Your task to perform on an android device: change timer sound Image 0: 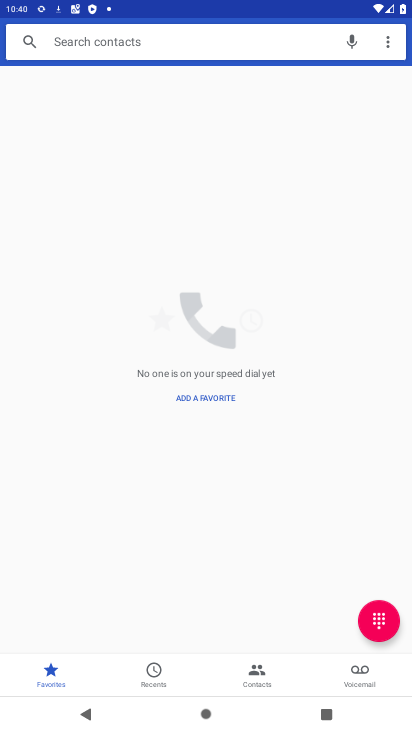
Step 0: press home button
Your task to perform on an android device: change timer sound Image 1: 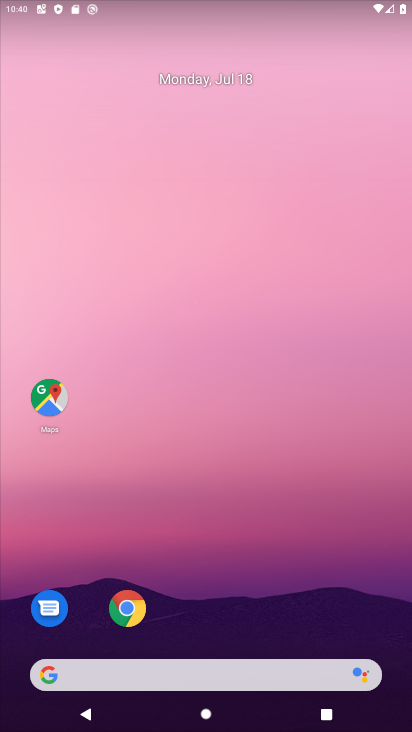
Step 1: drag from (191, 439) to (197, 77)
Your task to perform on an android device: change timer sound Image 2: 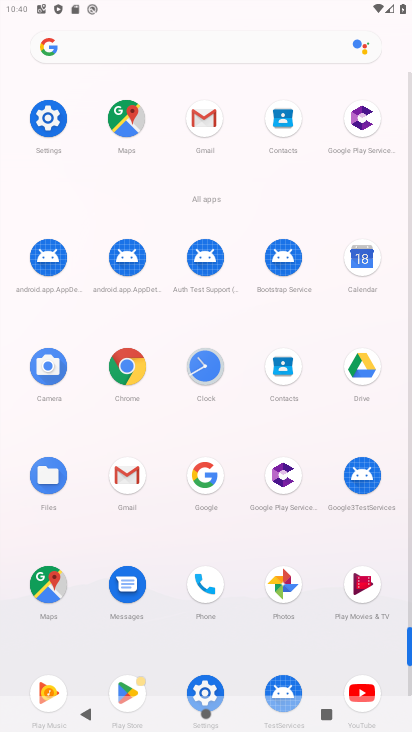
Step 2: click (209, 38)
Your task to perform on an android device: change timer sound Image 3: 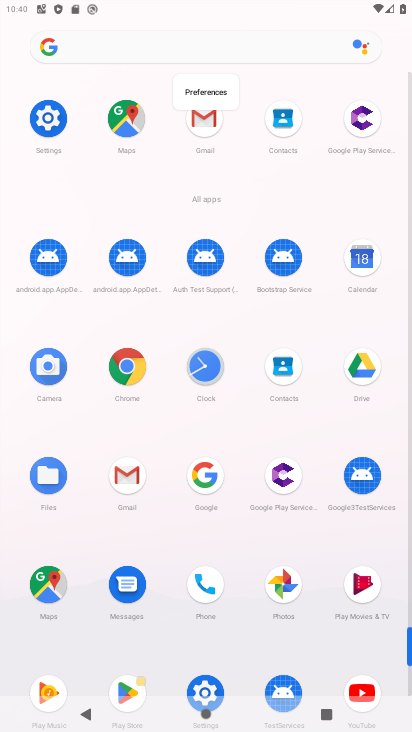
Step 3: click (209, 385)
Your task to perform on an android device: change timer sound Image 4: 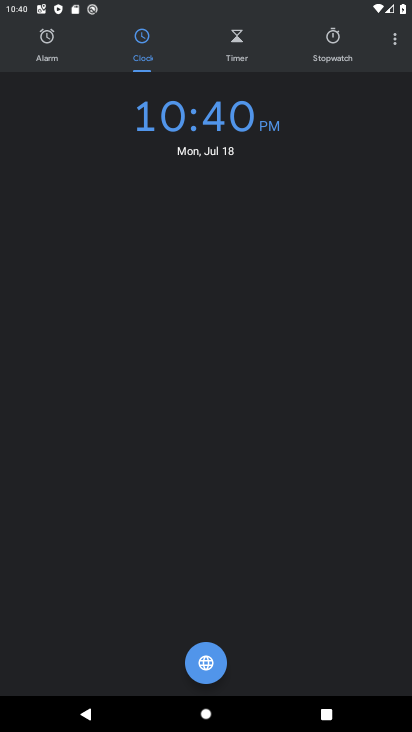
Step 4: click (382, 44)
Your task to perform on an android device: change timer sound Image 5: 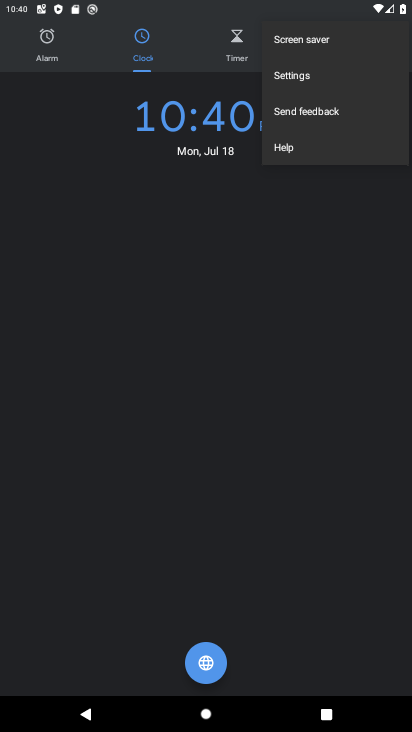
Step 5: click (290, 78)
Your task to perform on an android device: change timer sound Image 6: 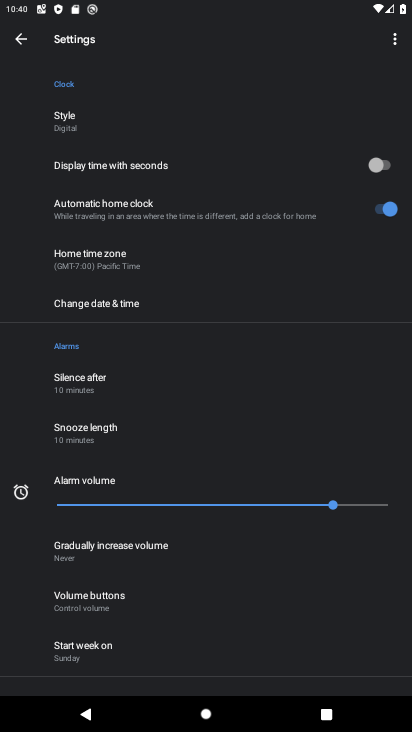
Step 6: drag from (152, 518) to (187, 352)
Your task to perform on an android device: change timer sound Image 7: 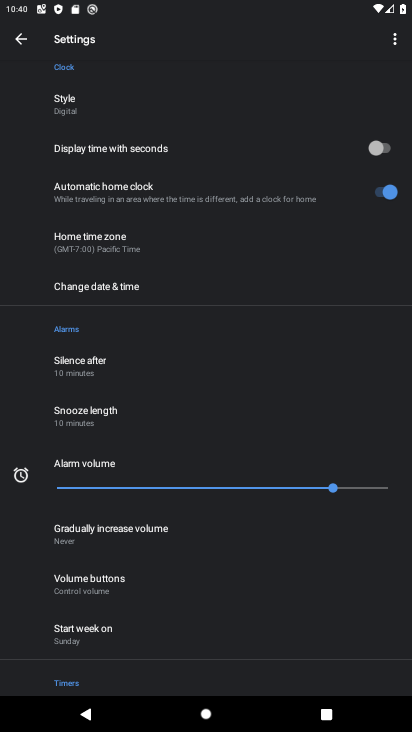
Step 7: drag from (151, 604) to (165, 374)
Your task to perform on an android device: change timer sound Image 8: 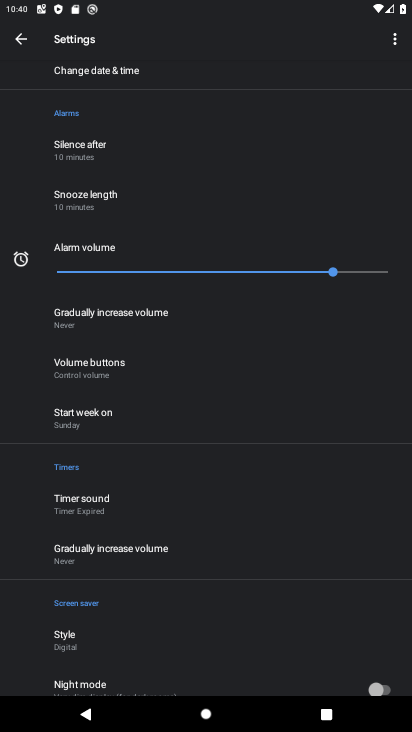
Step 8: click (77, 544)
Your task to perform on an android device: change timer sound Image 9: 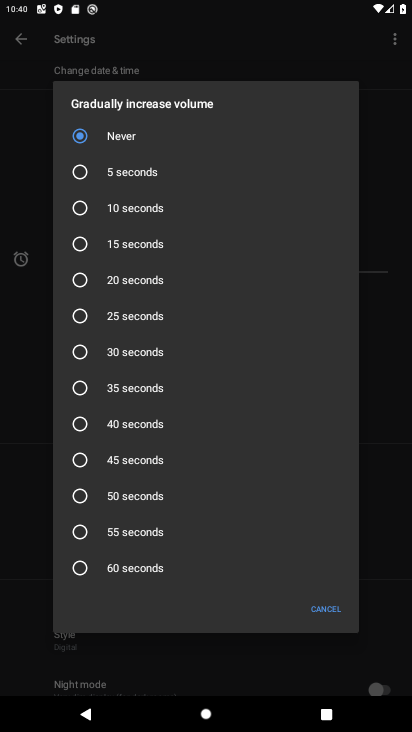
Step 9: click (393, 179)
Your task to perform on an android device: change timer sound Image 10: 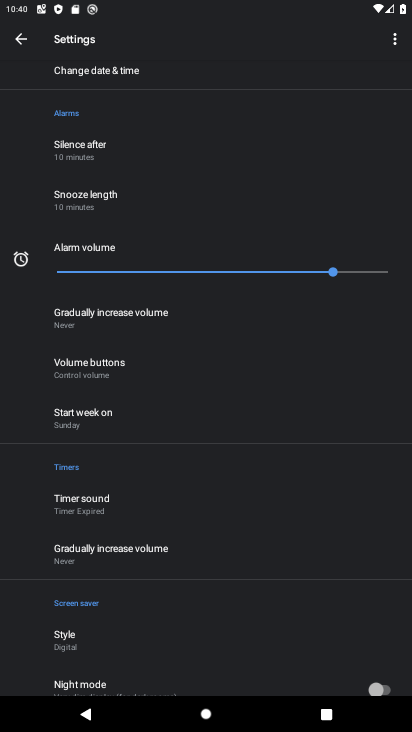
Step 10: click (108, 502)
Your task to perform on an android device: change timer sound Image 11: 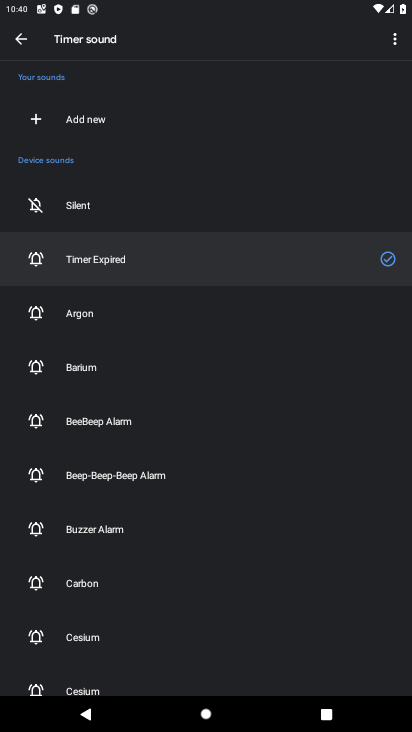
Step 11: click (88, 368)
Your task to perform on an android device: change timer sound Image 12: 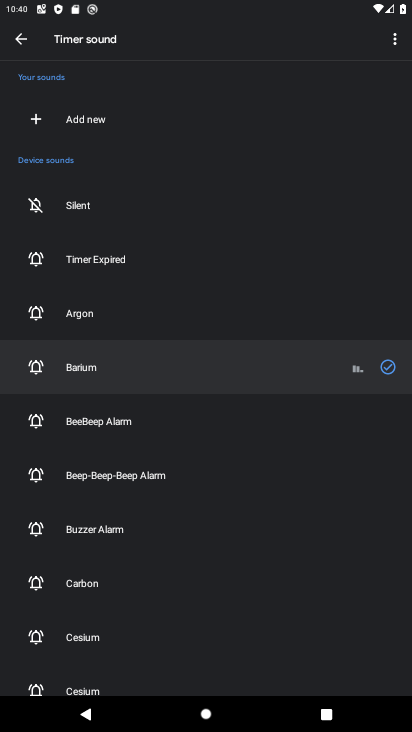
Step 12: task complete